Your task to perform on an android device: Open battery settings Image 0: 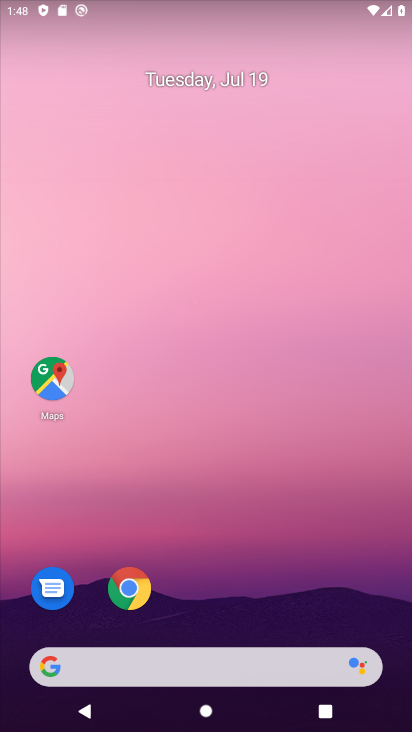
Step 0: drag from (266, 548) to (149, 122)
Your task to perform on an android device: Open battery settings Image 1: 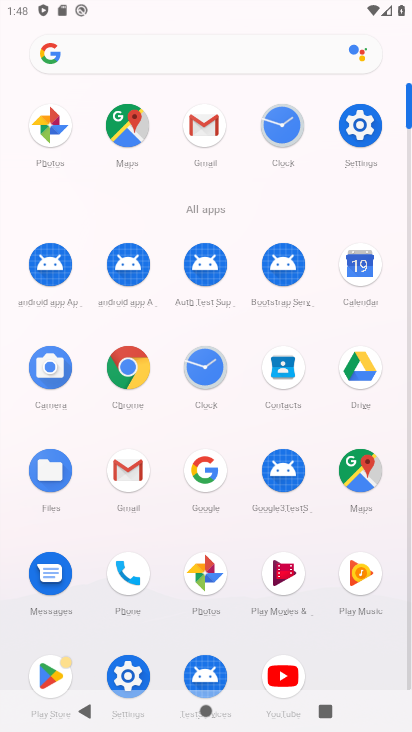
Step 1: click (364, 116)
Your task to perform on an android device: Open battery settings Image 2: 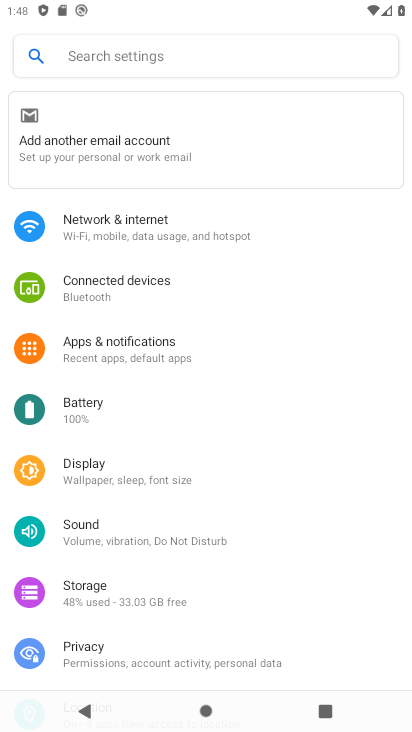
Step 2: click (78, 407)
Your task to perform on an android device: Open battery settings Image 3: 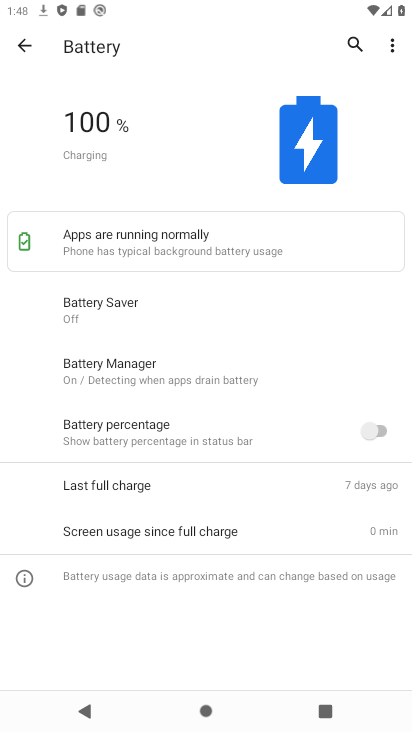
Step 3: task complete